Your task to perform on an android device: turn off javascript in the chrome app Image 0: 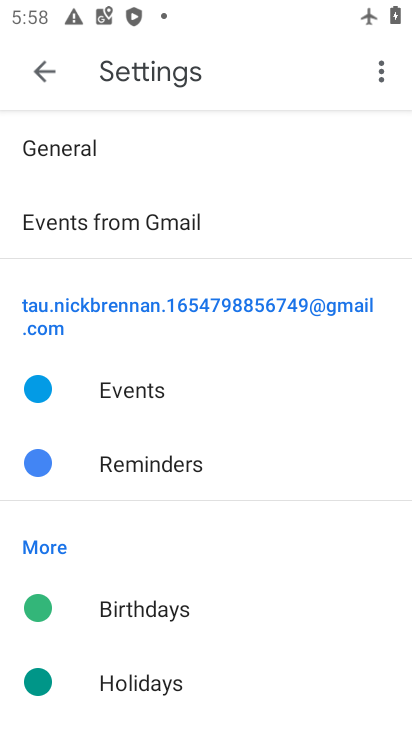
Step 0: press home button
Your task to perform on an android device: turn off javascript in the chrome app Image 1: 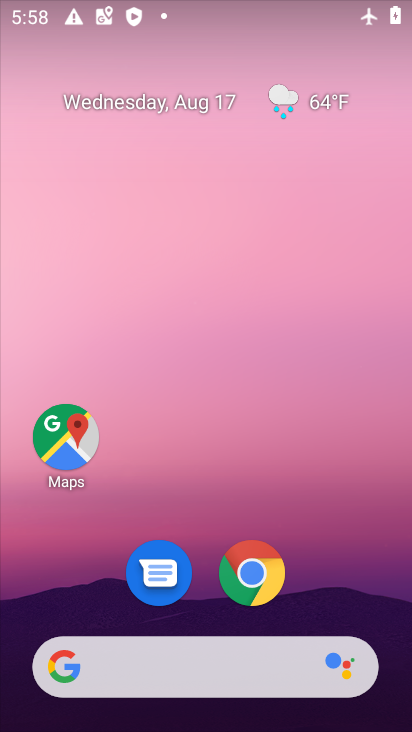
Step 1: drag from (343, 550) to (410, 30)
Your task to perform on an android device: turn off javascript in the chrome app Image 2: 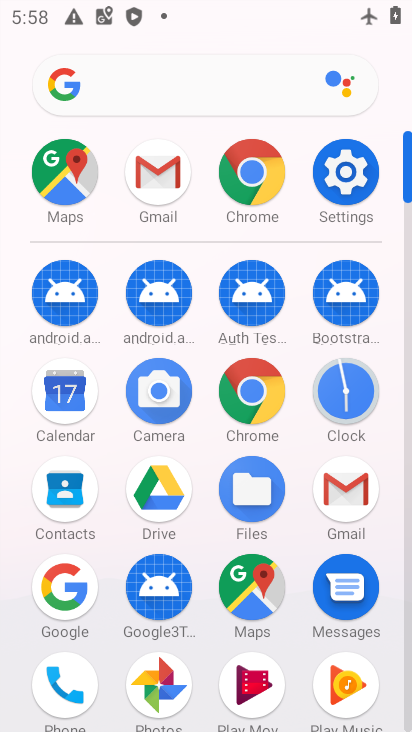
Step 2: click (263, 184)
Your task to perform on an android device: turn off javascript in the chrome app Image 3: 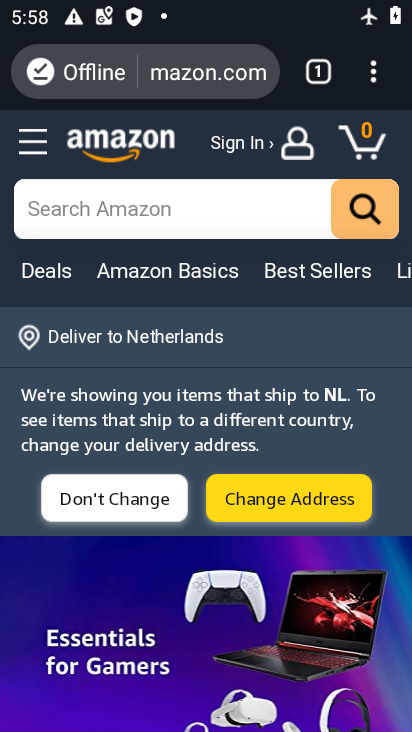
Step 3: drag from (374, 70) to (166, 575)
Your task to perform on an android device: turn off javascript in the chrome app Image 4: 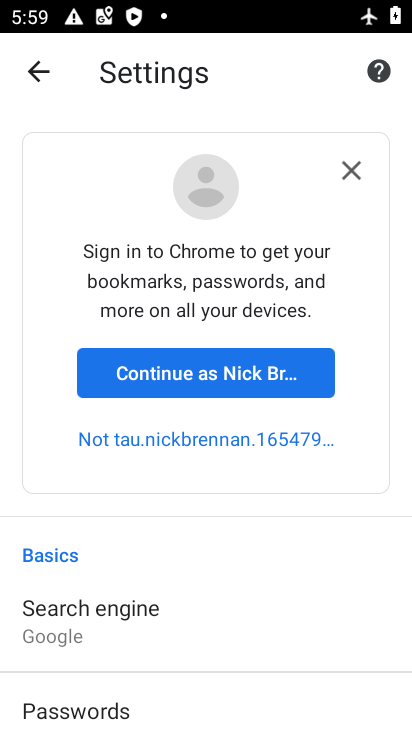
Step 4: drag from (174, 556) to (188, 204)
Your task to perform on an android device: turn off javascript in the chrome app Image 5: 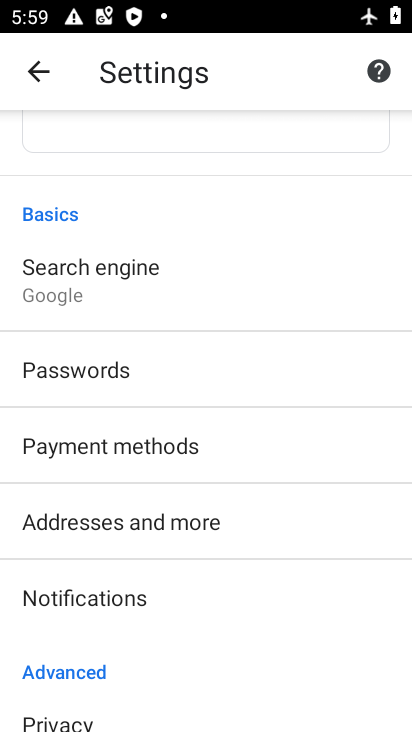
Step 5: drag from (212, 548) to (260, 120)
Your task to perform on an android device: turn off javascript in the chrome app Image 6: 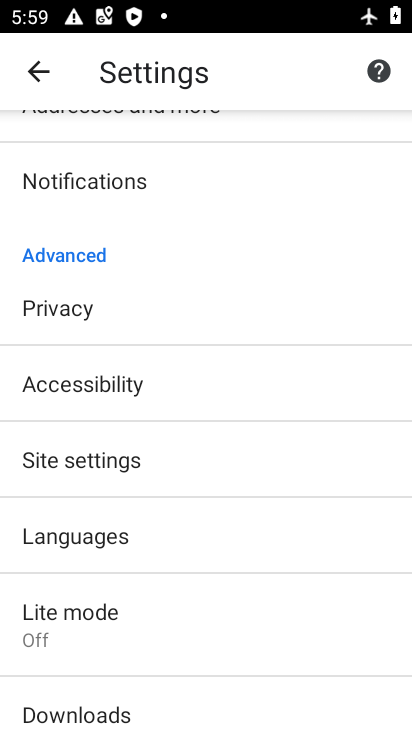
Step 6: click (171, 464)
Your task to perform on an android device: turn off javascript in the chrome app Image 7: 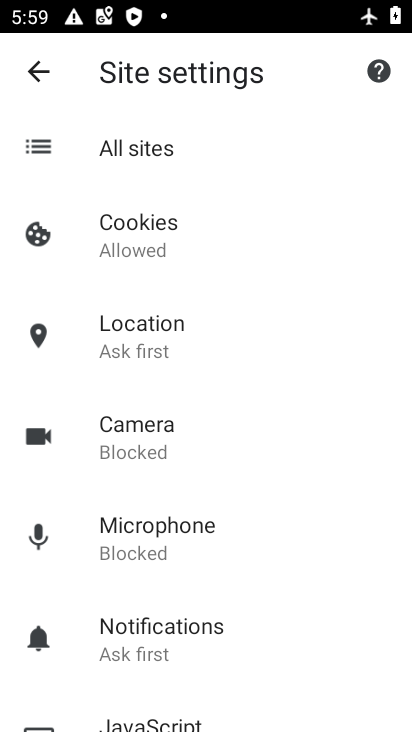
Step 7: drag from (217, 594) to (296, 177)
Your task to perform on an android device: turn off javascript in the chrome app Image 8: 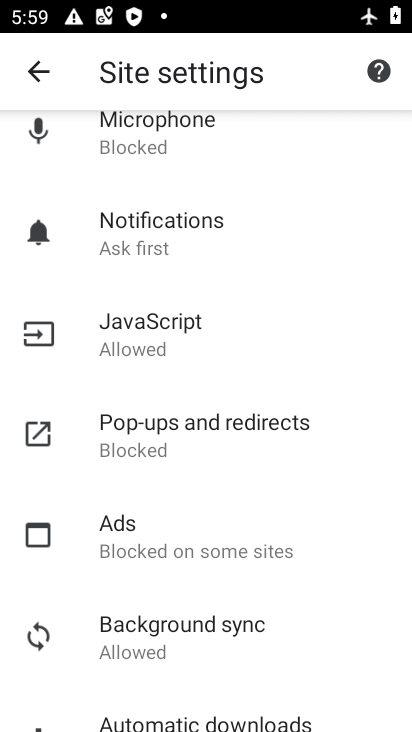
Step 8: click (186, 319)
Your task to perform on an android device: turn off javascript in the chrome app Image 9: 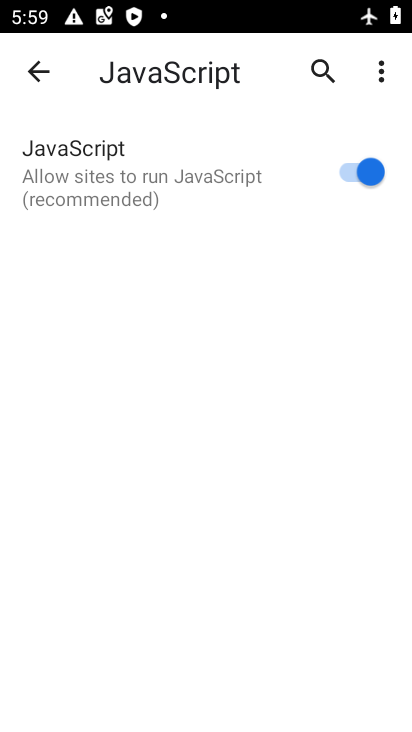
Step 9: click (351, 169)
Your task to perform on an android device: turn off javascript in the chrome app Image 10: 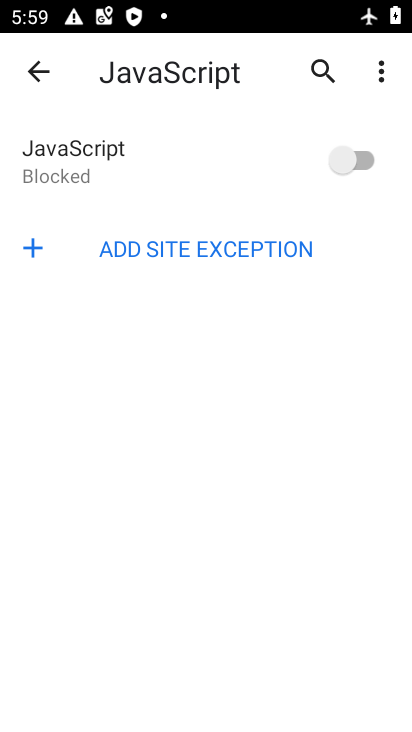
Step 10: task complete